Your task to perform on an android device: turn on sleep mode Image 0: 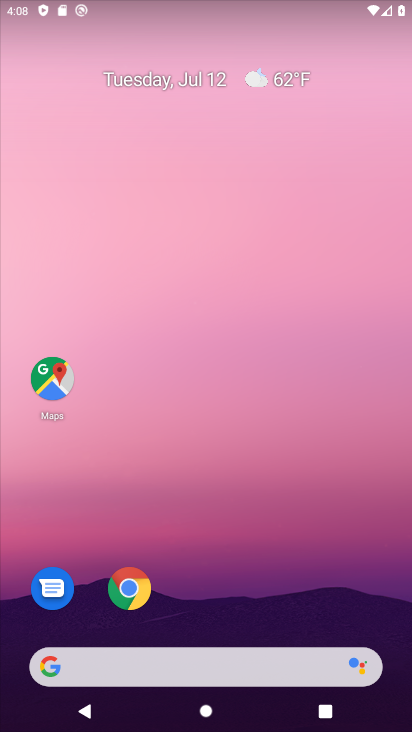
Step 0: drag from (164, 634) to (248, 120)
Your task to perform on an android device: turn on sleep mode Image 1: 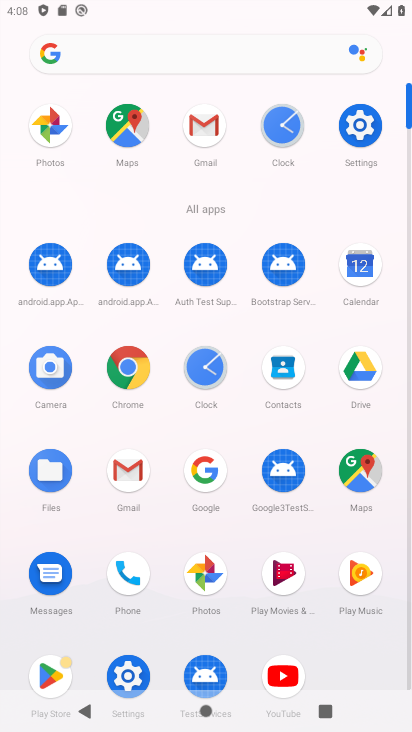
Step 1: click (124, 681)
Your task to perform on an android device: turn on sleep mode Image 2: 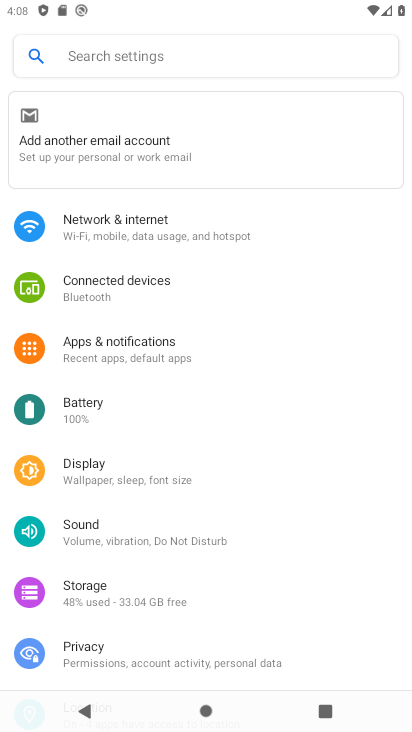
Step 2: click (100, 477)
Your task to perform on an android device: turn on sleep mode Image 3: 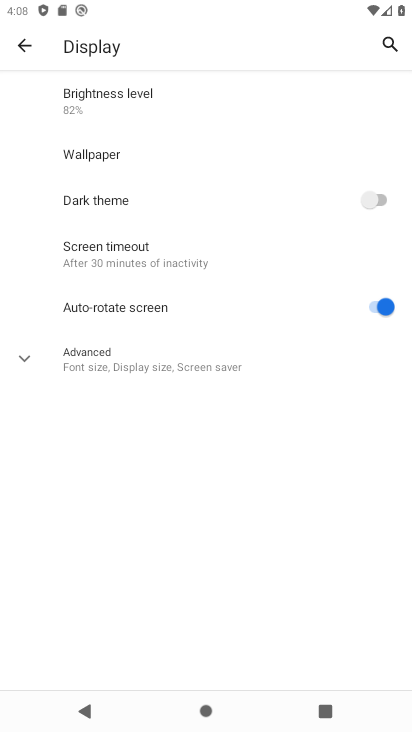
Step 3: click (108, 370)
Your task to perform on an android device: turn on sleep mode Image 4: 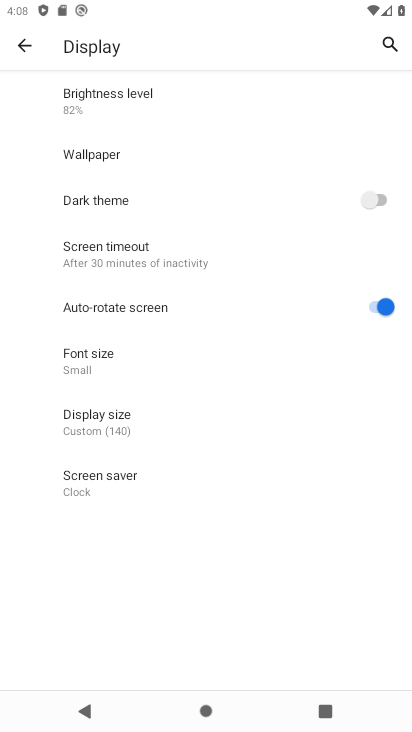
Step 4: task complete